Your task to perform on an android device: Open notification settings Image 0: 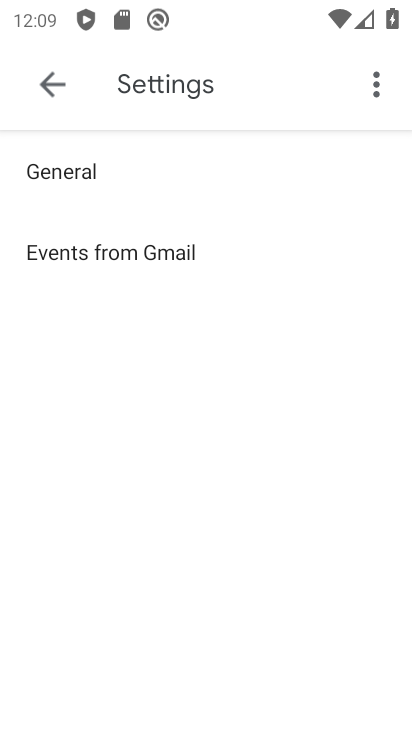
Step 0: press home button
Your task to perform on an android device: Open notification settings Image 1: 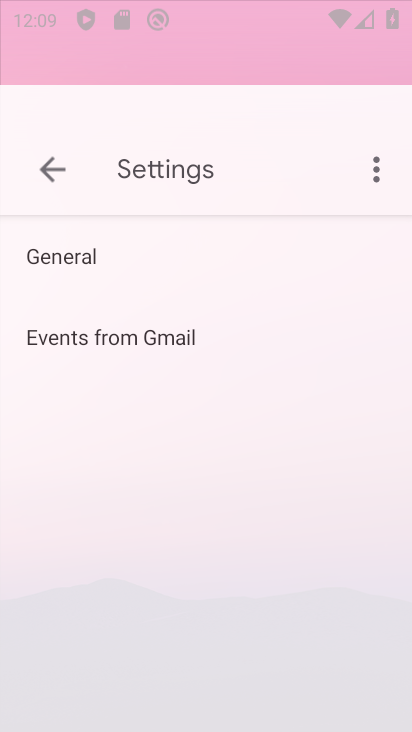
Step 1: press home button
Your task to perform on an android device: Open notification settings Image 2: 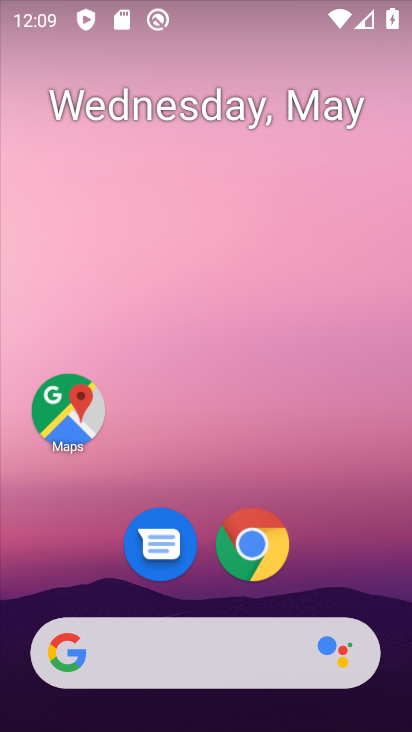
Step 2: drag from (375, 553) to (377, 195)
Your task to perform on an android device: Open notification settings Image 3: 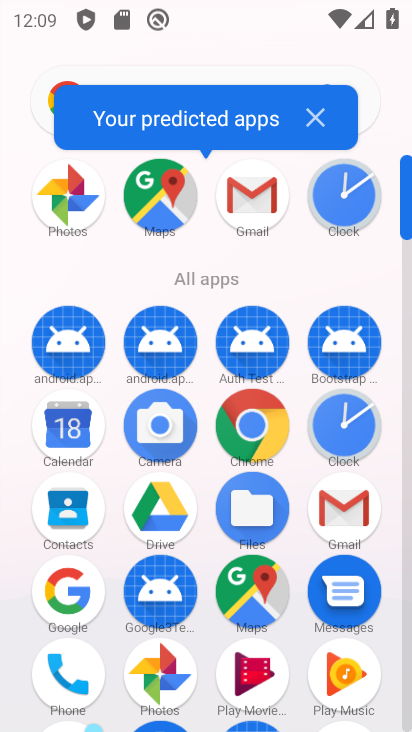
Step 3: drag from (175, 602) to (236, 240)
Your task to perform on an android device: Open notification settings Image 4: 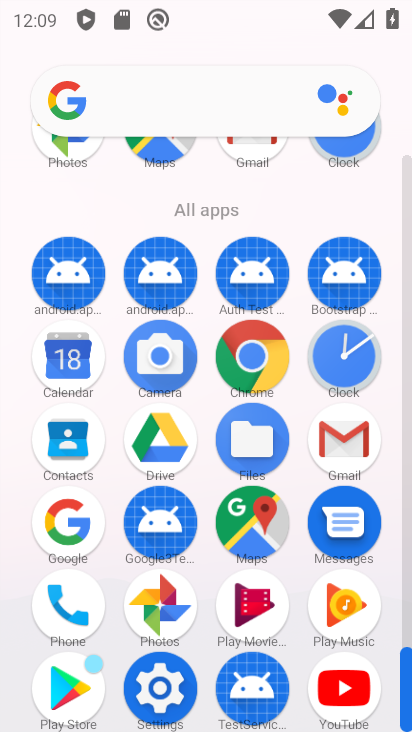
Step 4: click (167, 683)
Your task to perform on an android device: Open notification settings Image 5: 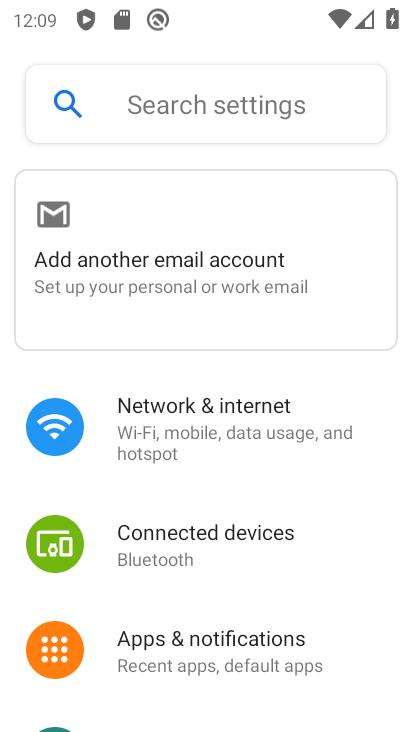
Step 5: click (204, 630)
Your task to perform on an android device: Open notification settings Image 6: 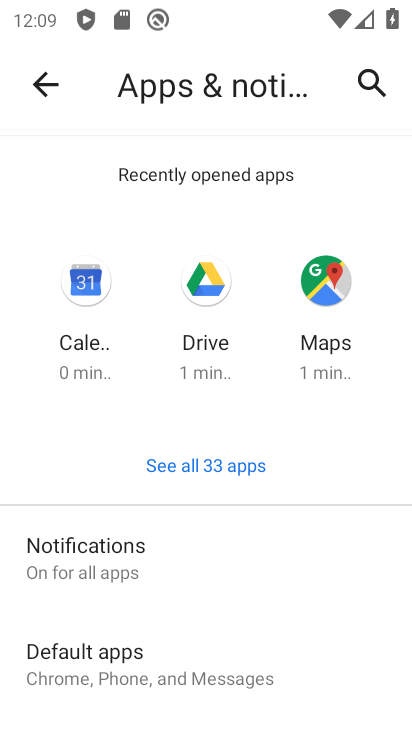
Step 6: click (107, 584)
Your task to perform on an android device: Open notification settings Image 7: 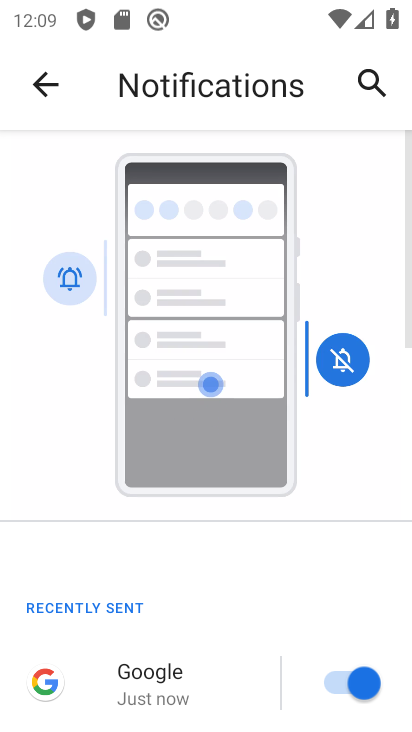
Step 7: task complete